Your task to perform on an android device: snooze an email in the gmail app Image 0: 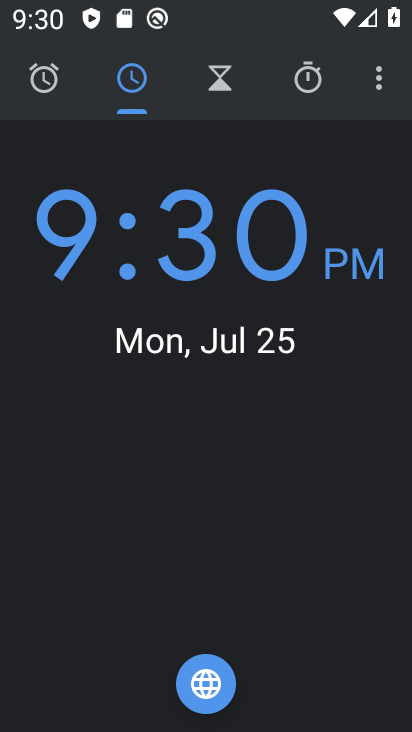
Step 0: press home button
Your task to perform on an android device: snooze an email in the gmail app Image 1: 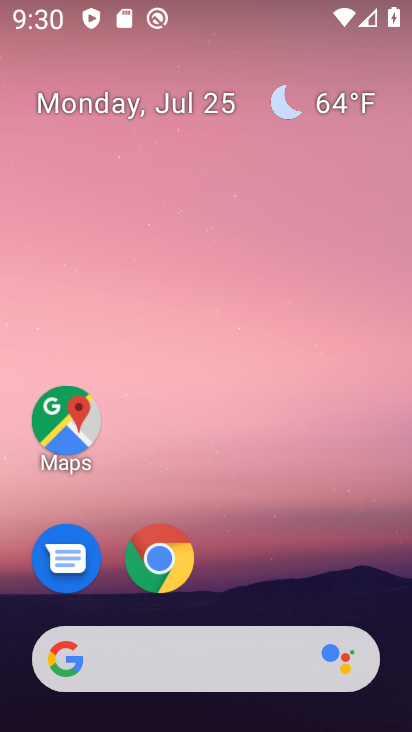
Step 1: drag from (385, 579) to (354, 124)
Your task to perform on an android device: snooze an email in the gmail app Image 2: 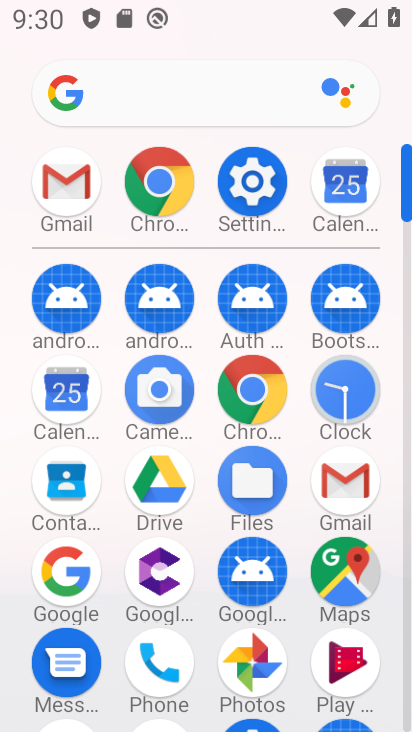
Step 2: click (344, 487)
Your task to perform on an android device: snooze an email in the gmail app Image 3: 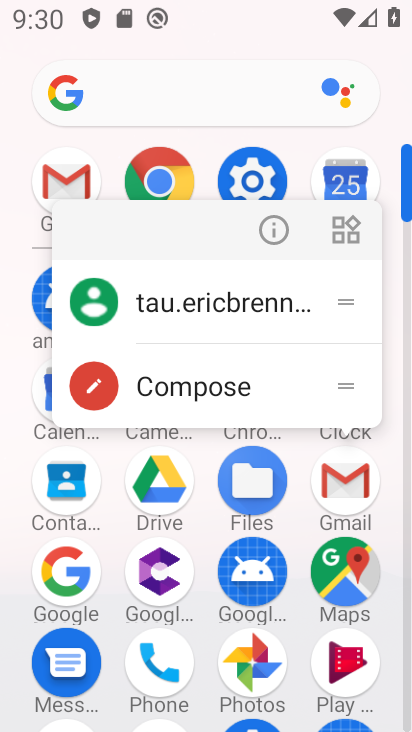
Step 3: click (344, 487)
Your task to perform on an android device: snooze an email in the gmail app Image 4: 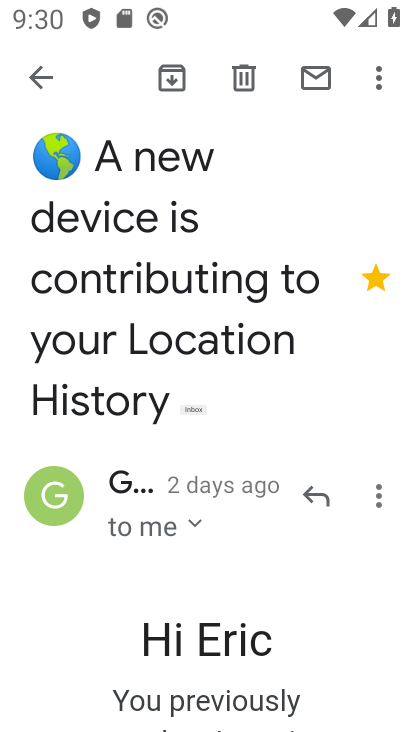
Step 4: press back button
Your task to perform on an android device: snooze an email in the gmail app Image 5: 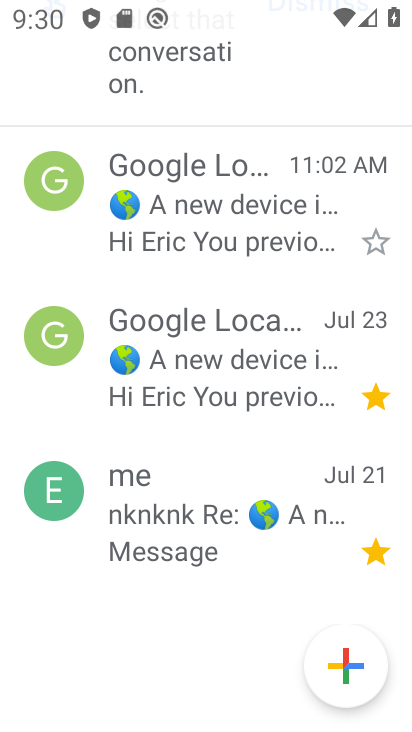
Step 5: press back button
Your task to perform on an android device: snooze an email in the gmail app Image 6: 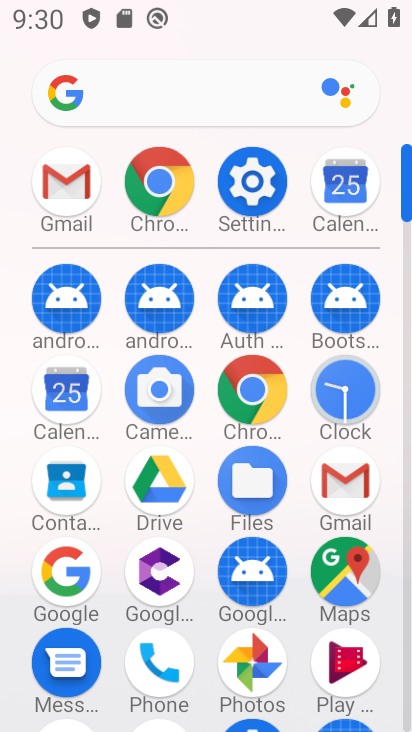
Step 6: click (353, 476)
Your task to perform on an android device: snooze an email in the gmail app Image 7: 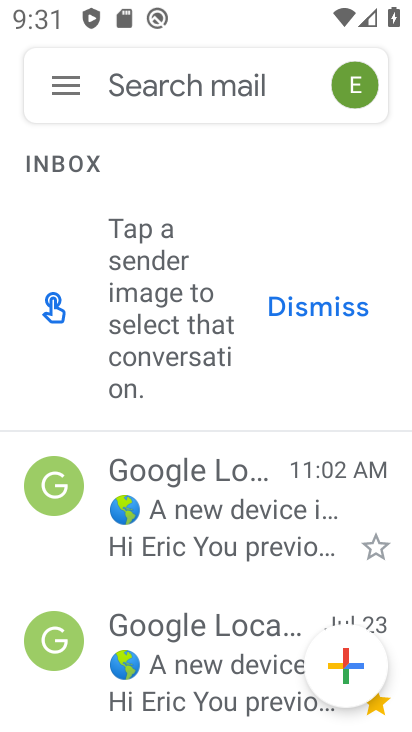
Step 7: click (70, 90)
Your task to perform on an android device: snooze an email in the gmail app Image 8: 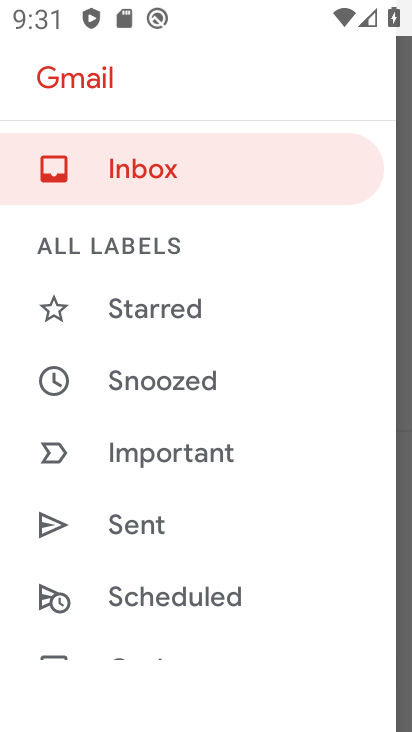
Step 8: click (177, 381)
Your task to perform on an android device: snooze an email in the gmail app Image 9: 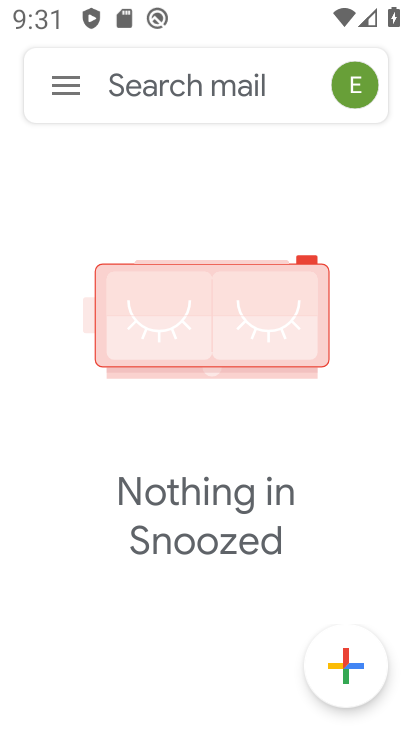
Step 9: task complete